Your task to perform on an android device: delete location history Image 0: 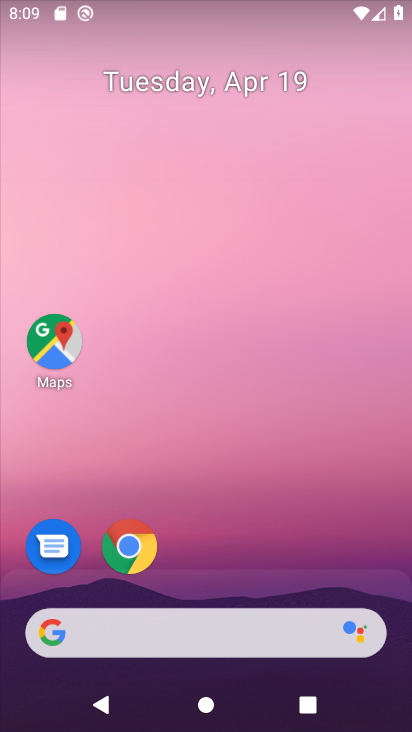
Step 0: click (57, 346)
Your task to perform on an android device: delete location history Image 1: 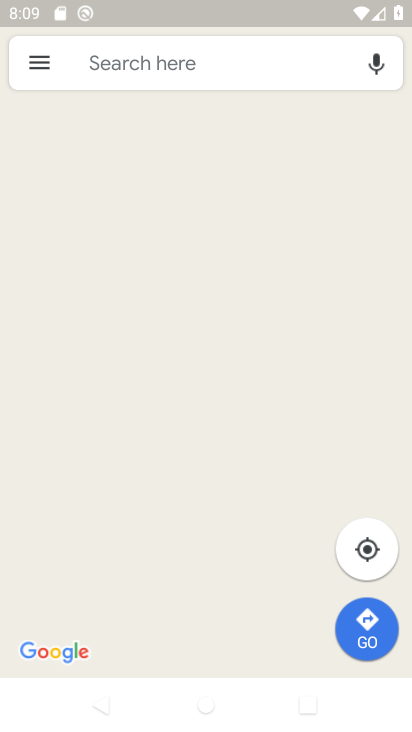
Step 1: click (28, 57)
Your task to perform on an android device: delete location history Image 2: 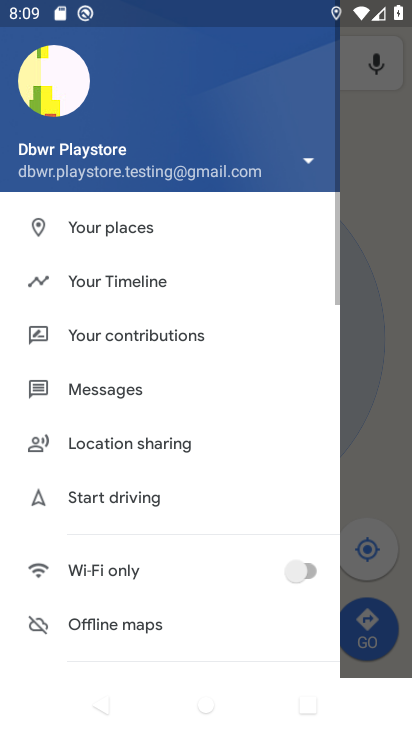
Step 2: click (146, 284)
Your task to perform on an android device: delete location history Image 3: 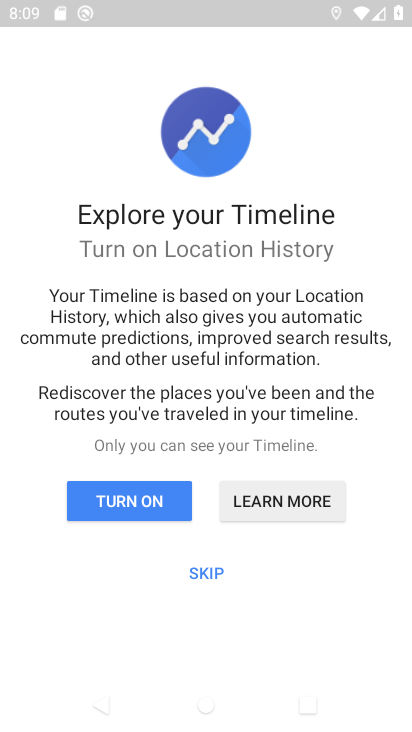
Step 3: click (202, 569)
Your task to perform on an android device: delete location history Image 4: 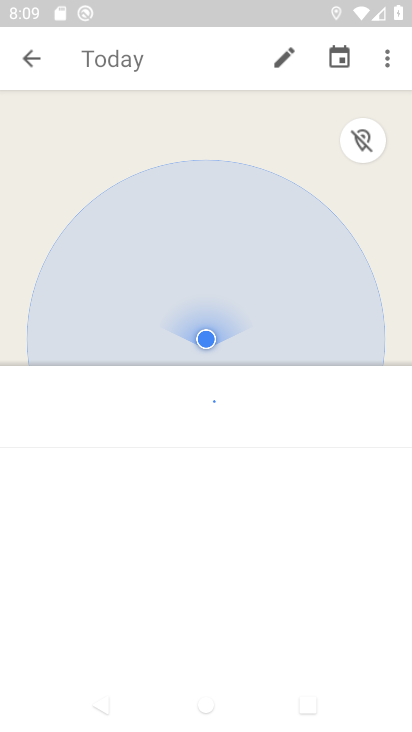
Step 4: click (388, 63)
Your task to perform on an android device: delete location history Image 5: 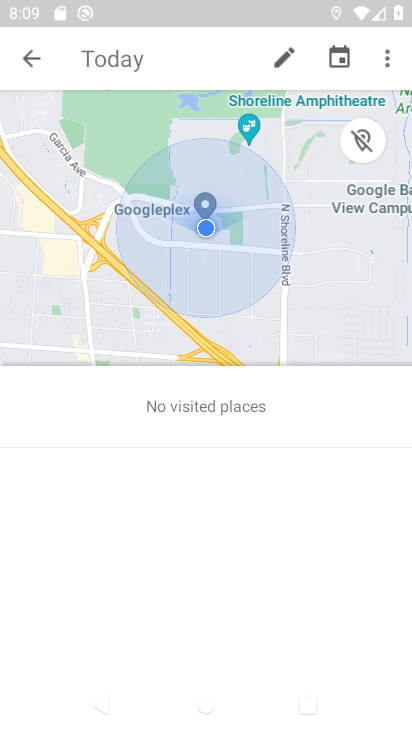
Step 5: click (389, 63)
Your task to perform on an android device: delete location history Image 6: 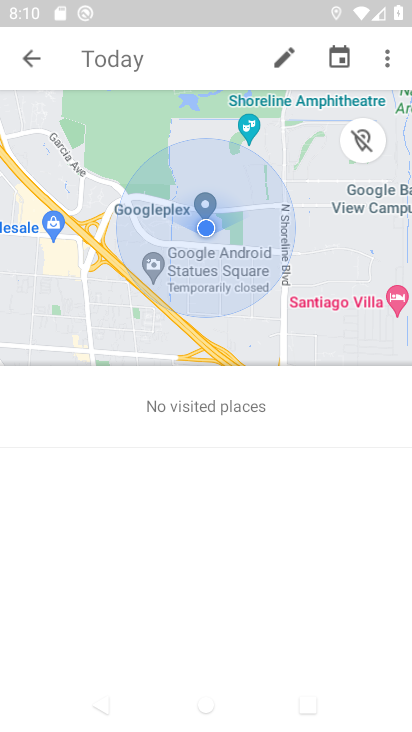
Step 6: click (391, 70)
Your task to perform on an android device: delete location history Image 7: 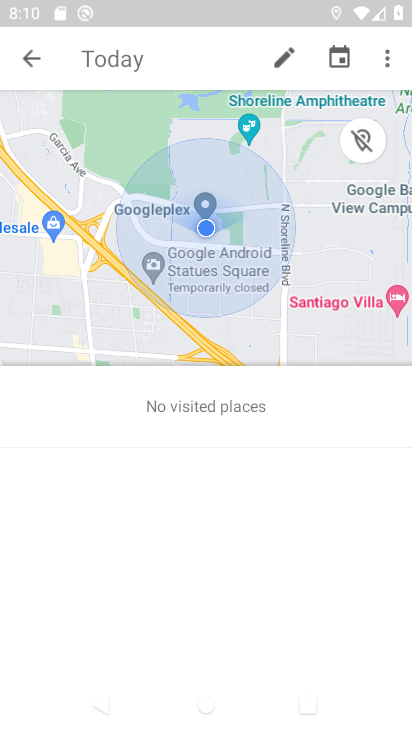
Step 7: click (390, 66)
Your task to perform on an android device: delete location history Image 8: 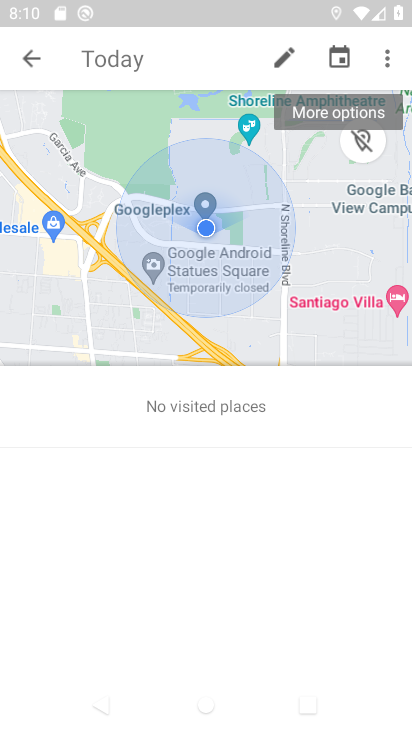
Step 8: click (382, 57)
Your task to perform on an android device: delete location history Image 9: 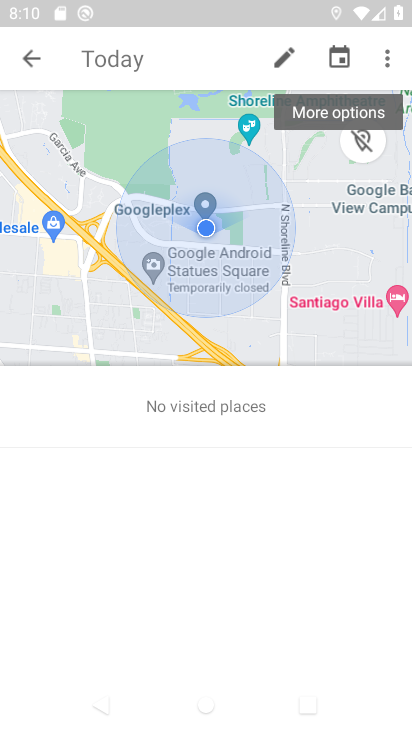
Step 9: click (382, 56)
Your task to perform on an android device: delete location history Image 10: 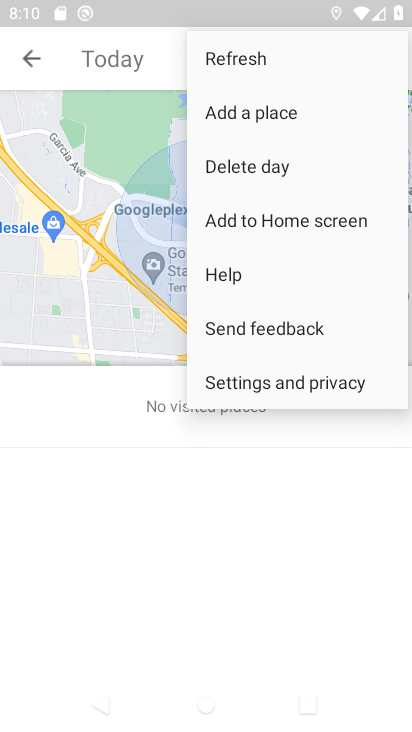
Step 10: click (270, 370)
Your task to perform on an android device: delete location history Image 11: 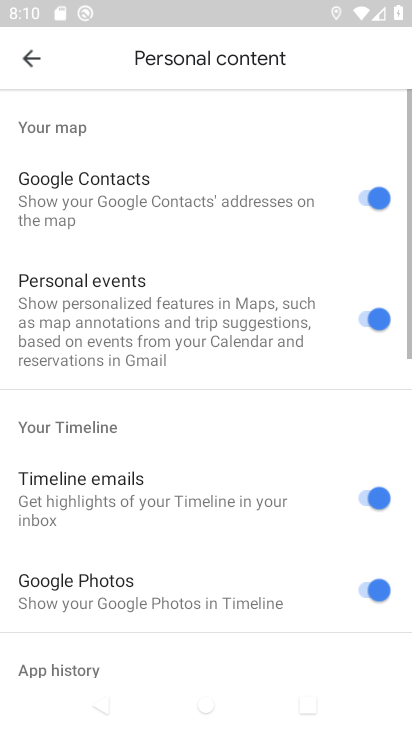
Step 11: drag from (160, 565) to (250, 80)
Your task to perform on an android device: delete location history Image 12: 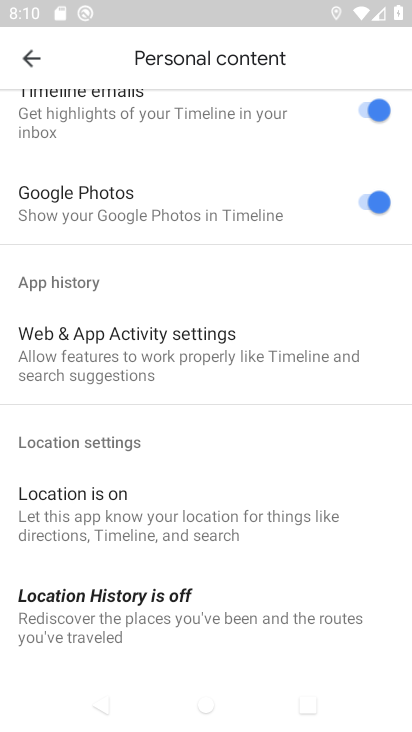
Step 12: drag from (188, 535) to (289, 104)
Your task to perform on an android device: delete location history Image 13: 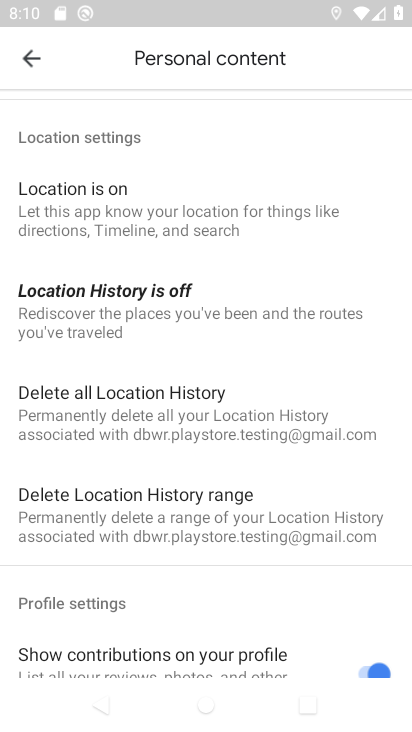
Step 13: click (173, 436)
Your task to perform on an android device: delete location history Image 14: 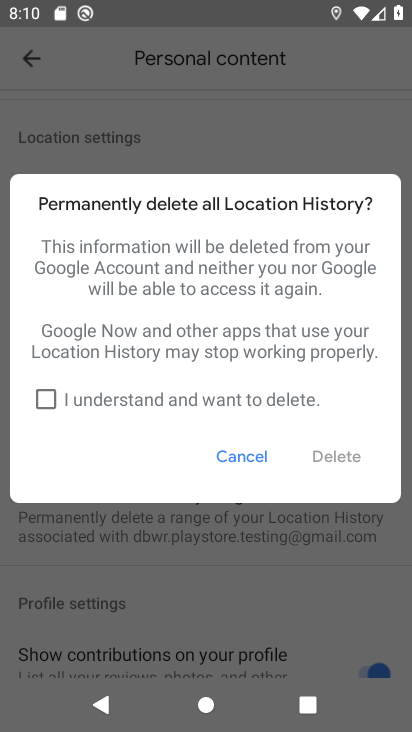
Step 14: click (32, 396)
Your task to perform on an android device: delete location history Image 15: 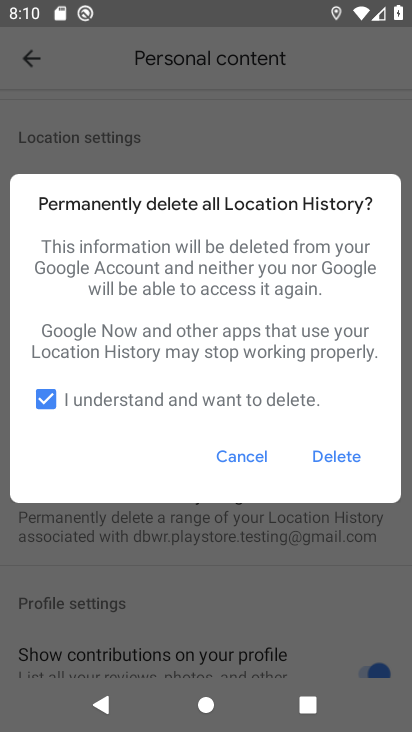
Step 15: click (341, 453)
Your task to perform on an android device: delete location history Image 16: 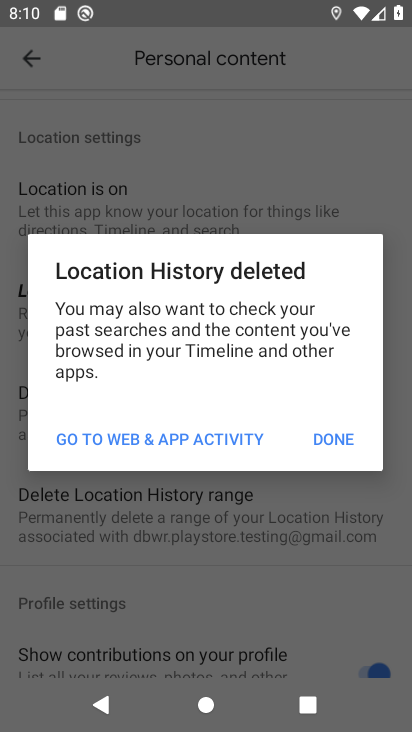
Step 16: click (326, 430)
Your task to perform on an android device: delete location history Image 17: 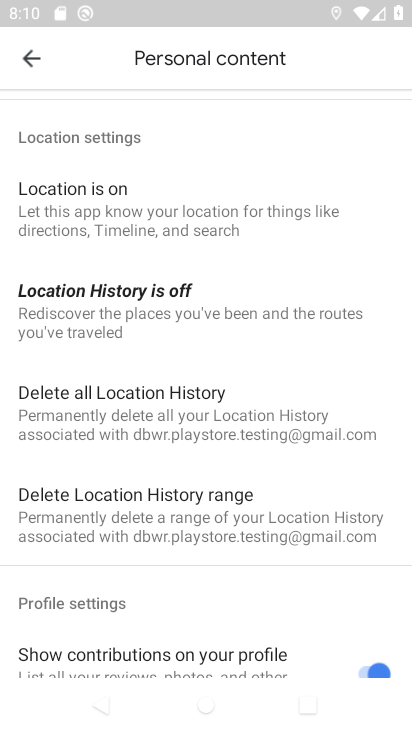
Step 17: task complete